Your task to perform on an android device: toggle improve location accuracy Image 0: 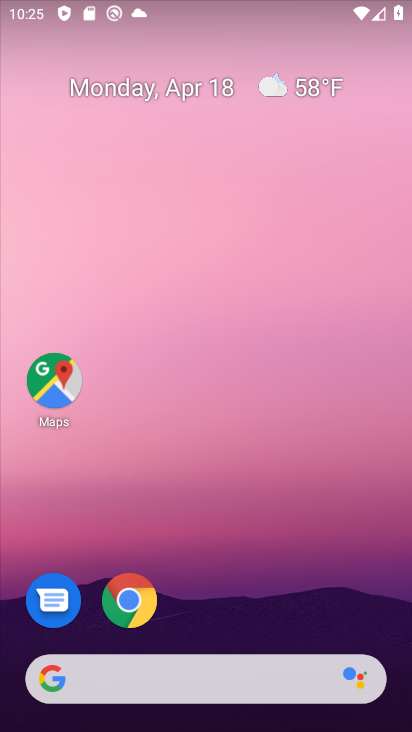
Step 0: drag from (259, 548) to (250, 1)
Your task to perform on an android device: toggle improve location accuracy Image 1: 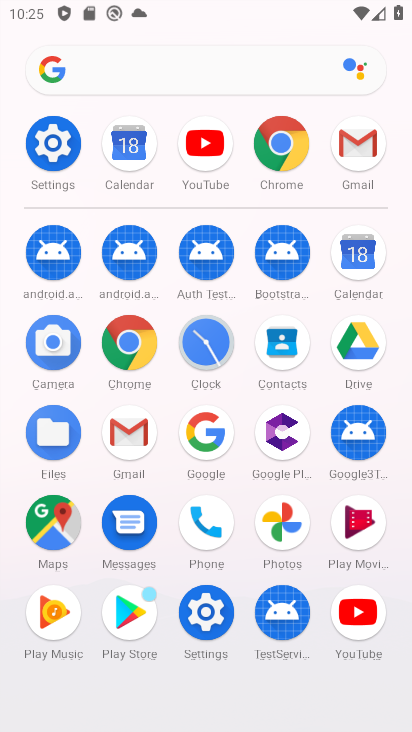
Step 1: click (53, 150)
Your task to perform on an android device: toggle improve location accuracy Image 2: 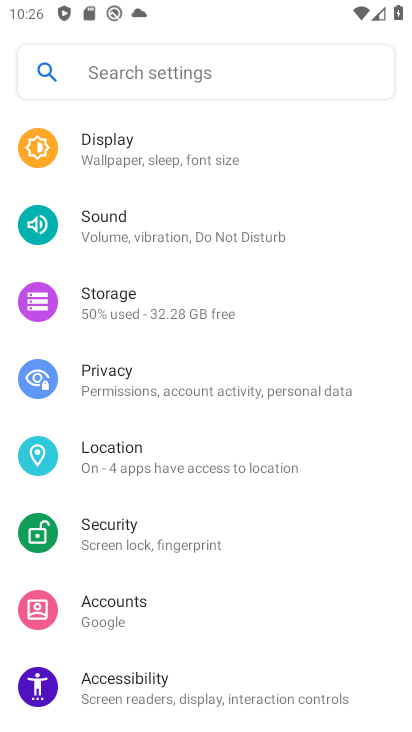
Step 2: click (117, 447)
Your task to perform on an android device: toggle improve location accuracy Image 3: 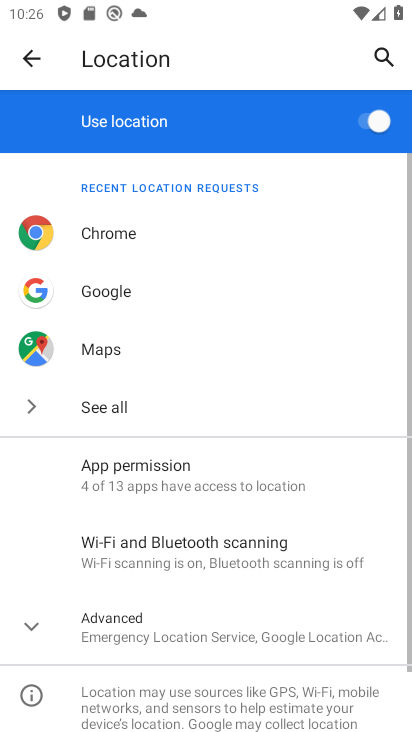
Step 3: drag from (208, 386) to (253, 78)
Your task to perform on an android device: toggle improve location accuracy Image 4: 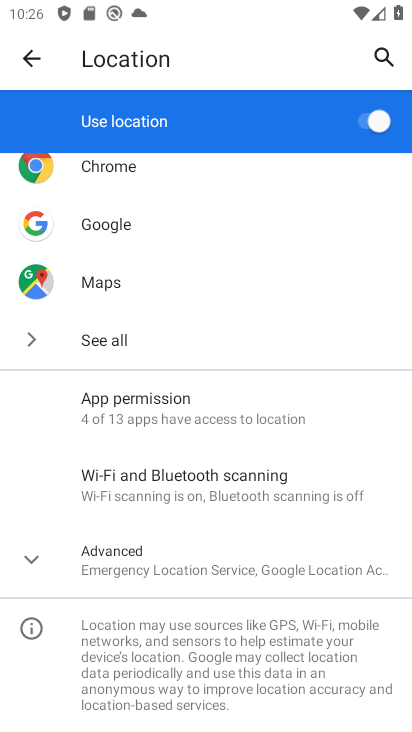
Step 4: click (115, 549)
Your task to perform on an android device: toggle improve location accuracy Image 5: 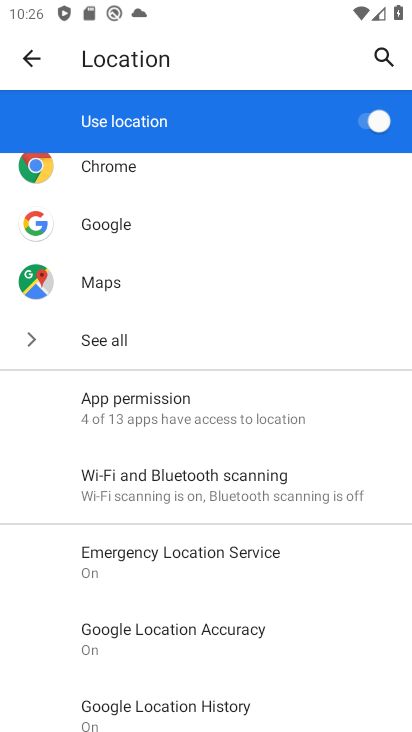
Step 5: drag from (195, 576) to (205, 325)
Your task to perform on an android device: toggle improve location accuracy Image 6: 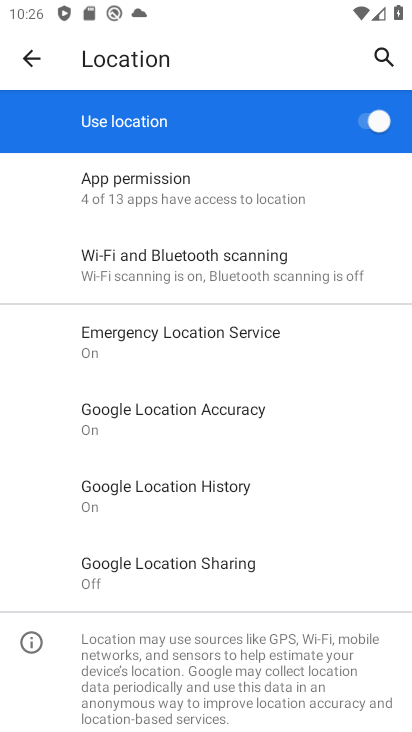
Step 6: click (182, 407)
Your task to perform on an android device: toggle improve location accuracy Image 7: 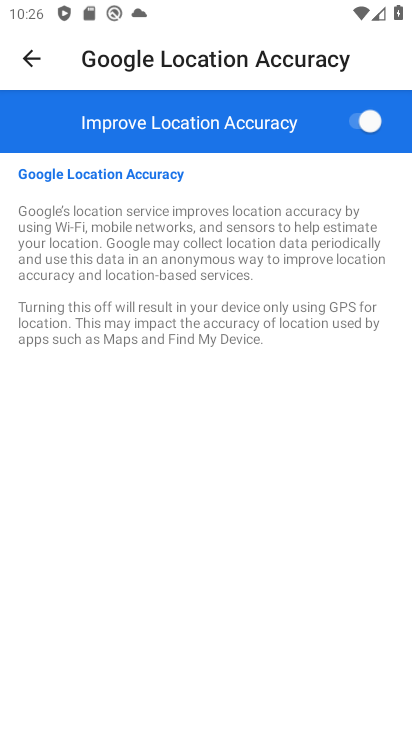
Step 7: click (365, 119)
Your task to perform on an android device: toggle improve location accuracy Image 8: 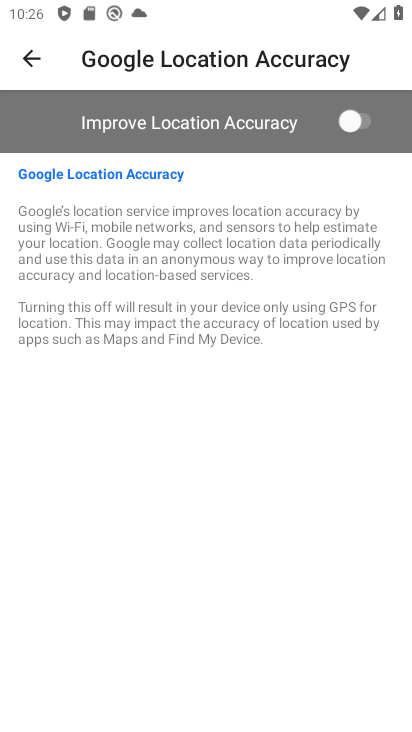
Step 8: task complete